Your task to perform on an android device: Open Google Chrome and open the bookmarks view Image 0: 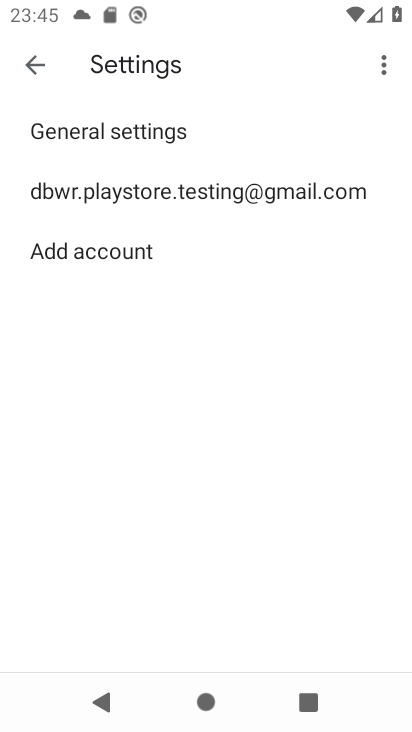
Step 0: press home button
Your task to perform on an android device: Open Google Chrome and open the bookmarks view Image 1: 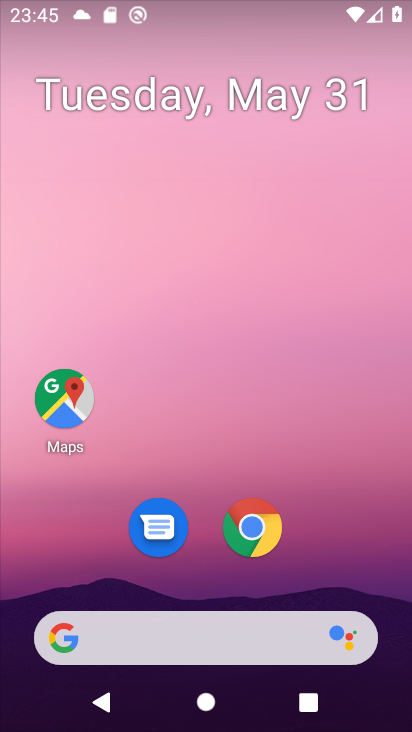
Step 1: click (261, 527)
Your task to perform on an android device: Open Google Chrome and open the bookmarks view Image 2: 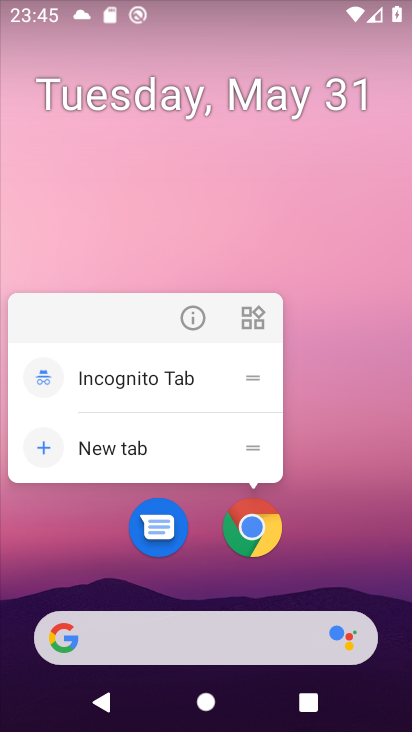
Step 2: click (252, 528)
Your task to perform on an android device: Open Google Chrome and open the bookmarks view Image 3: 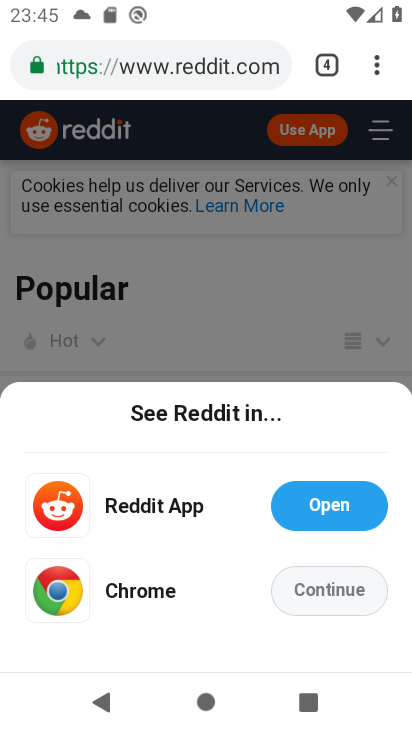
Step 3: click (378, 69)
Your task to perform on an android device: Open Google Chrome and open the bookmarks view Image 4: 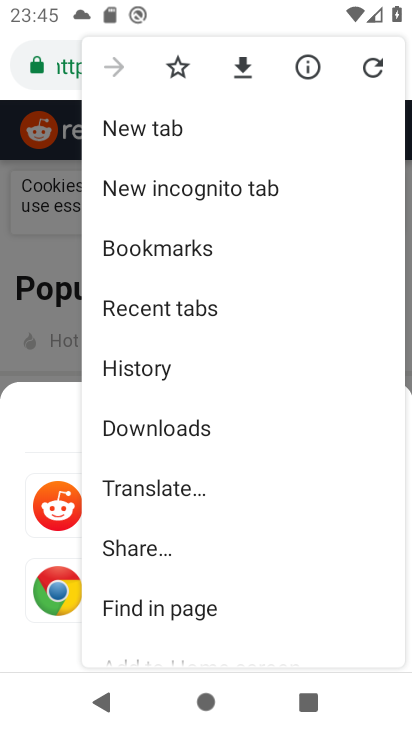
Step 4: click (212, 260)
Your task to perform on an android device: Open Google Chrome and open the bookmarks view Image 5: 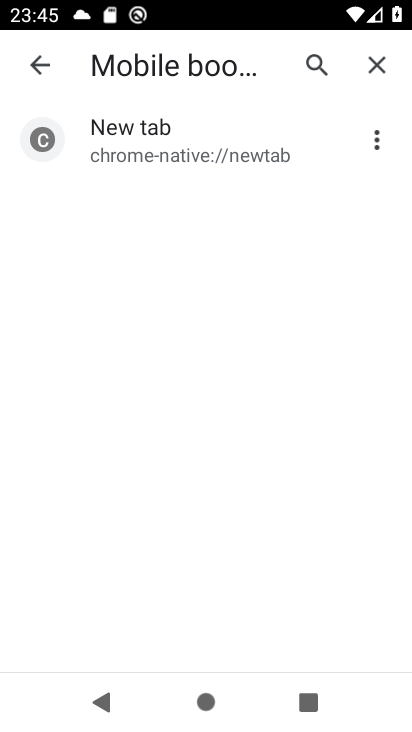
Step 5: click (193, 134)
Your task to perform on an android device: Open Google Chrome and open the bookmarks view Image 6: 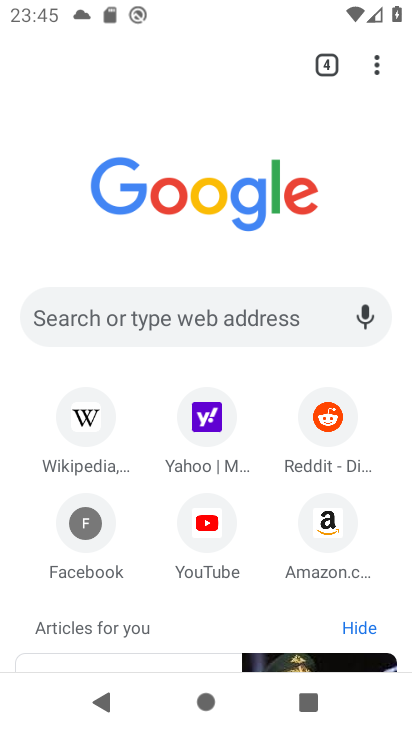
Step 6: task complete